Your task to perform on an android device: Go to Maps Image 0: 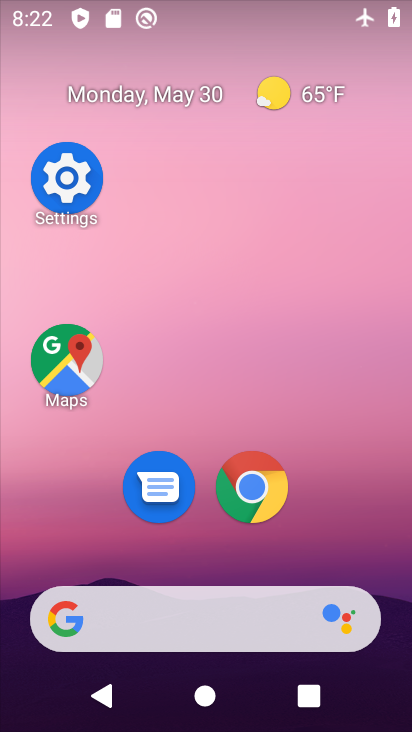
Step 0: click (77, 364)
Your task to perform on an android device: Go to Maps Image 1: 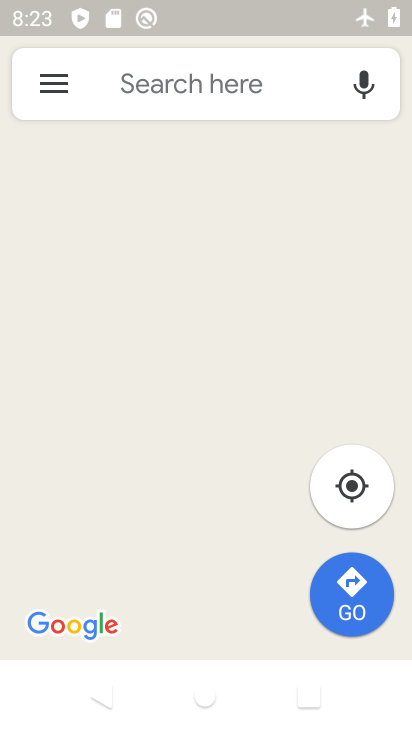
Step 1: task complete